Your task to perform on an android device: turn on improve location accuracy Image 0: 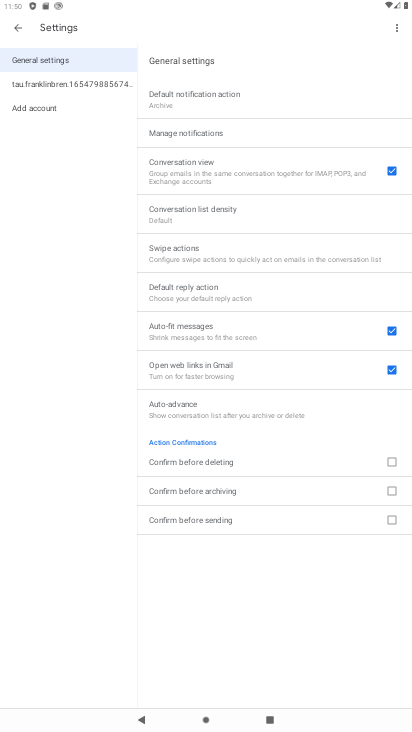
Step 0: press home button
Your task to perform on an android device: turn on improve location accuracy Image 1: 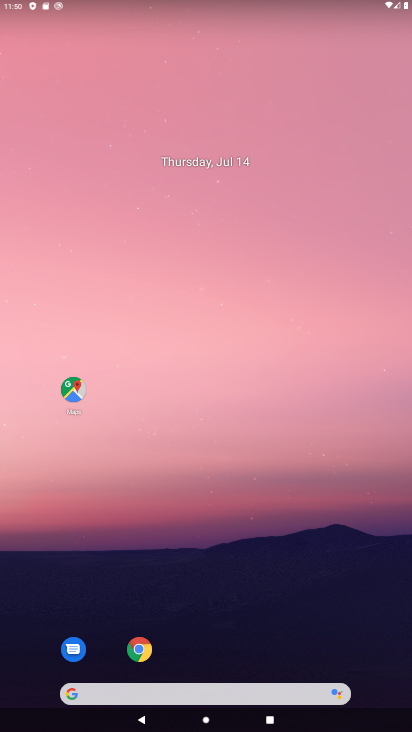
Step 1: drag from (225, 638) to (218, 202)
Your task to perform on an android device: turn on improve location accuracy Image 2: 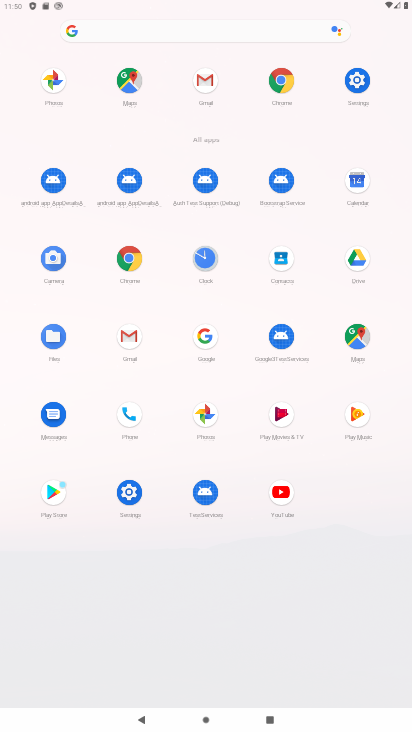
Step 2: click (353, 76)
Your task to perform on an android device: turn on improve location accuracy Image 3: 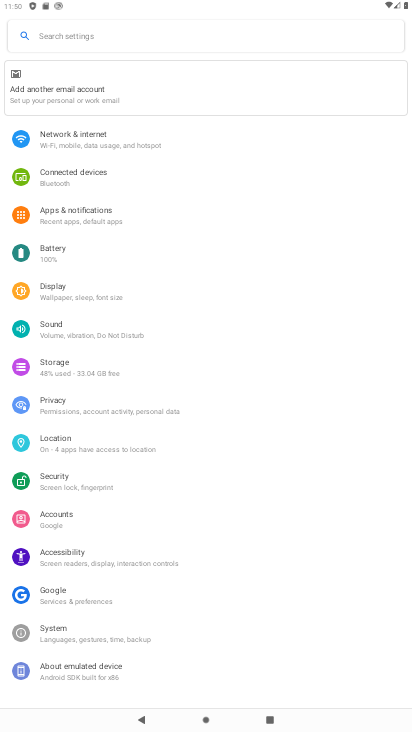
Step 3: click (91, 440)
Your task to perform on an android device: turn on improve location accuracy Image 4: 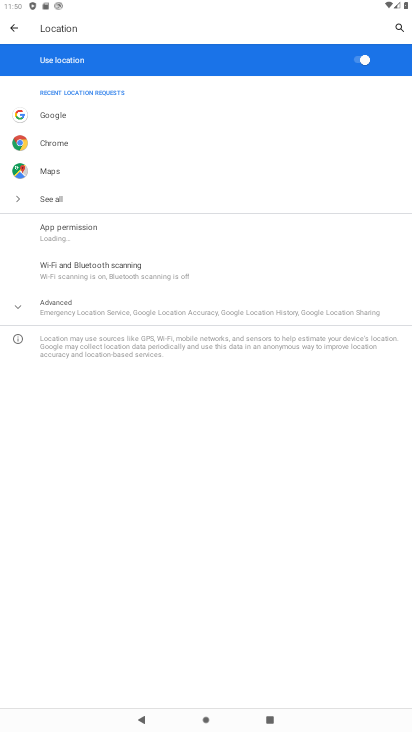
Step 4: click (114, 301)
Your task to perform on an android device: turn on improve location accuracy Image 5: 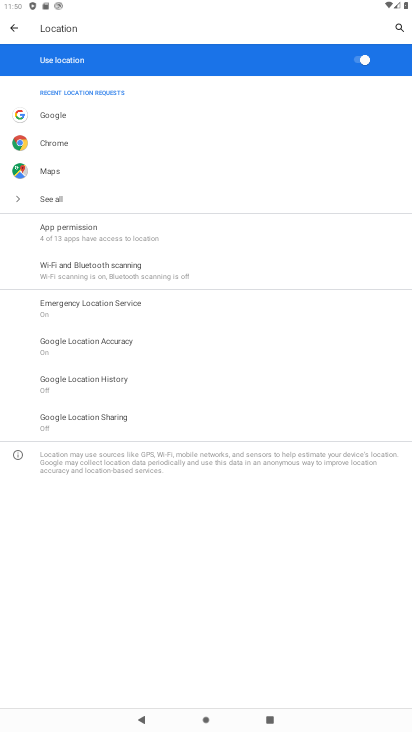
Step 5: click (127, 346)
Your task to perform on an android device: turn on improve location accuracy Image 6: 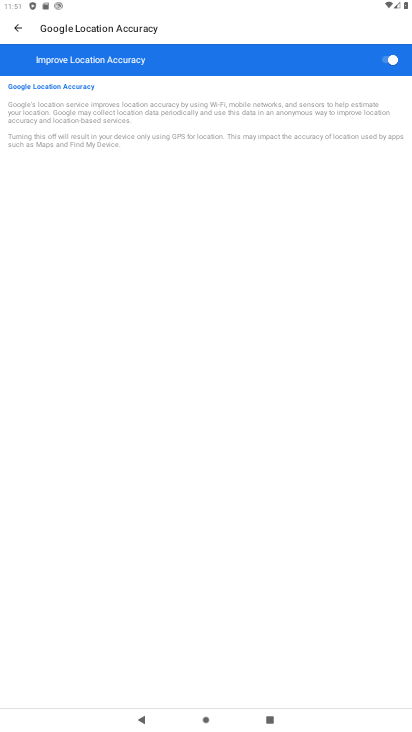
Step 6: task complete